Your task to perform on an android device: check battery use Image 0: 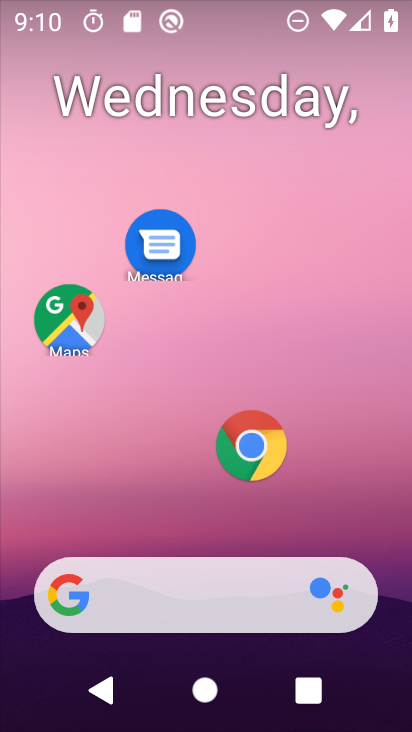
Step 0: drag from (200, 532) to (254, 46)
Your task to perform on an android device: check battery use Image 1: 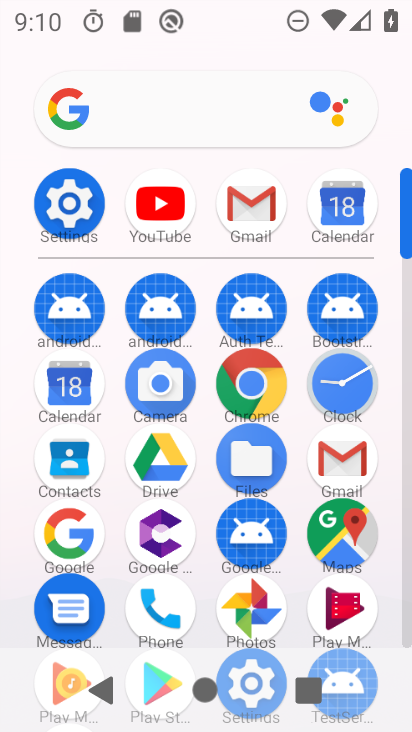
Step 1: click (75, 201)
Your task to perform on an android device: check battery use Image 2: 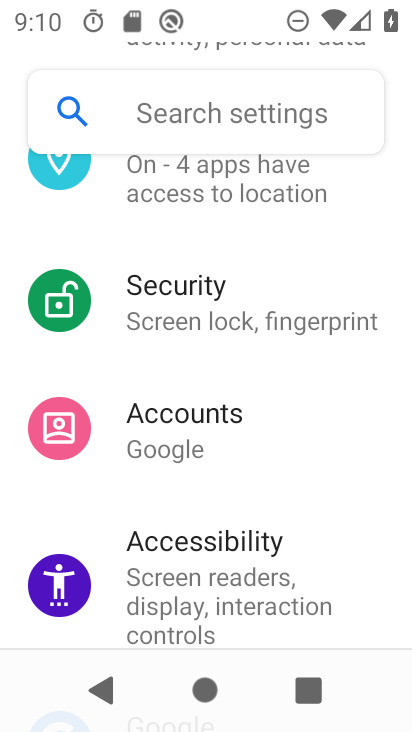
Step 2: drag from (200, 190) to (205, 629)
Your task to perform on an android device: check battery use Image 3: 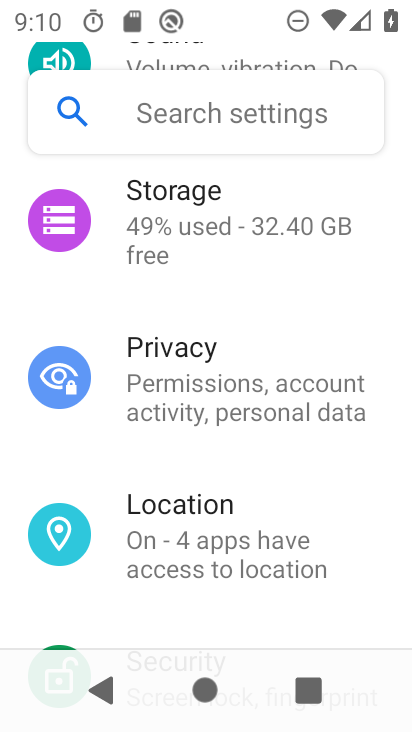
Step 3: drag from (186, 244) to (249, 683)
Your task to perform on an android device: check battery use Image 4: 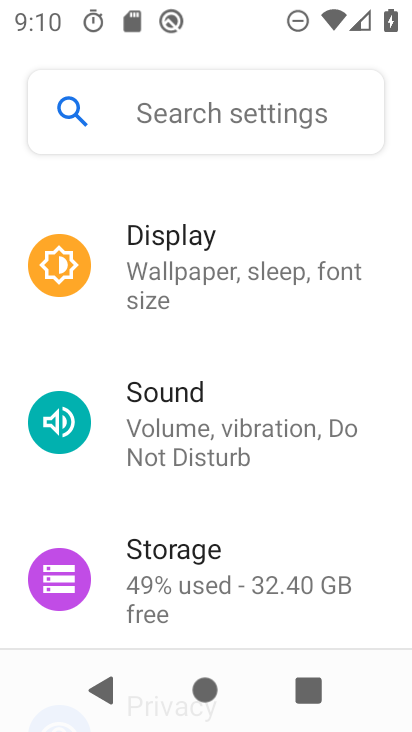
Step 4: drag from (199, 164) to (204, 584)
Your task to perform on an android device: check battery use Image 5: 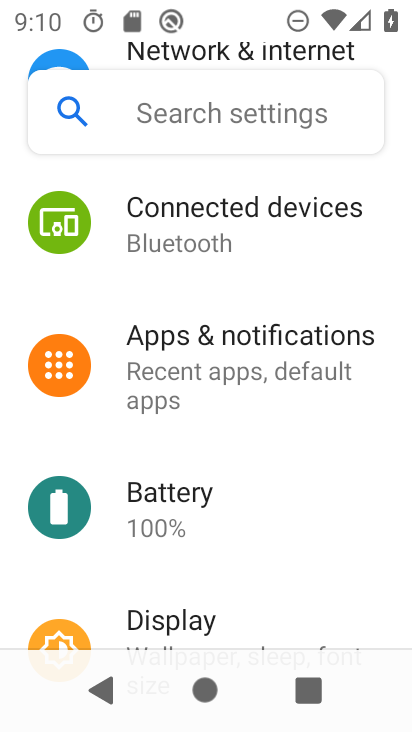
Step 5: click (206, 513)
Your task to perform on an android device: check battery use Image 6: 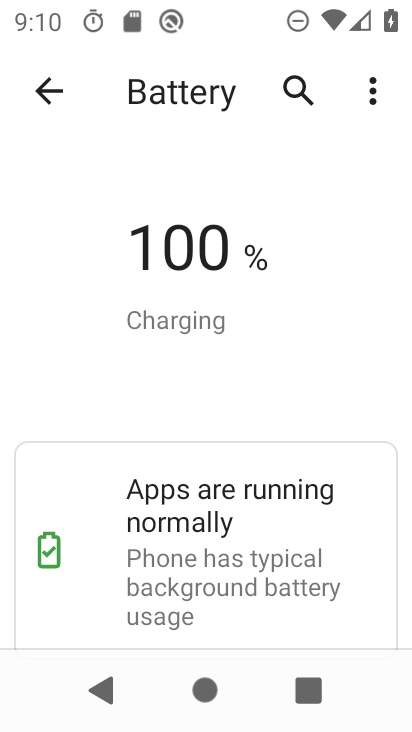
Step 6: click (375, 79)
Your task to perform on an android device: check battery use Image 7: 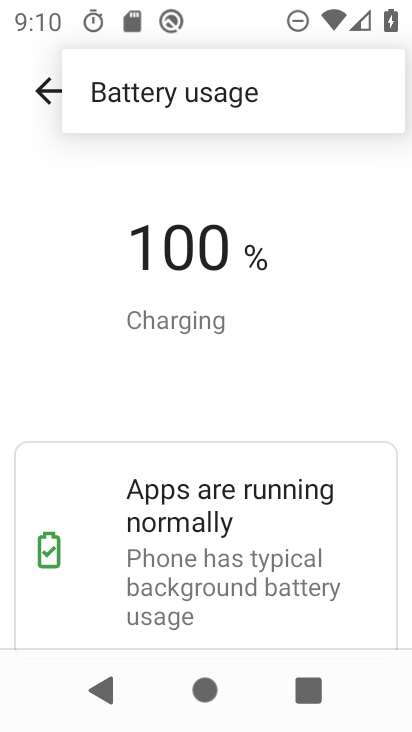
Step 7: click (192, 105)
Your task to perform on an android device: check battery use Image 8: 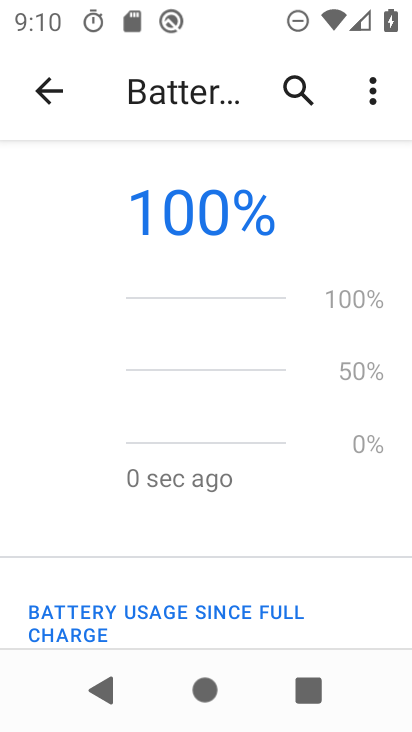
Step 8: drag from (240, 575) to (255, 221)
Your task to perform on an android device: check battery use Image 9: 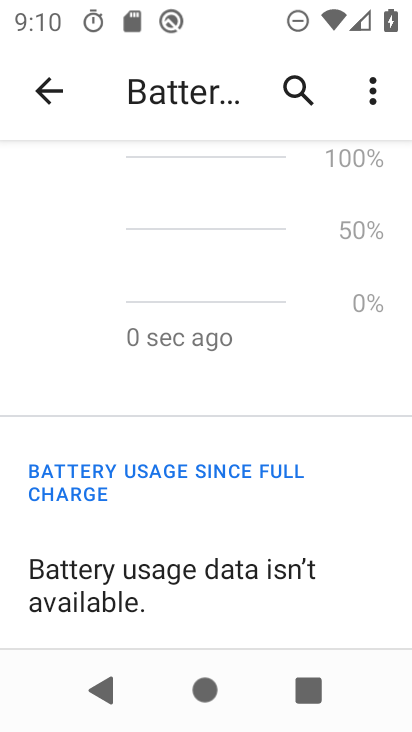
Step 9: click (373, 91)
Your task to perform on an android device: check battery use Image 10: 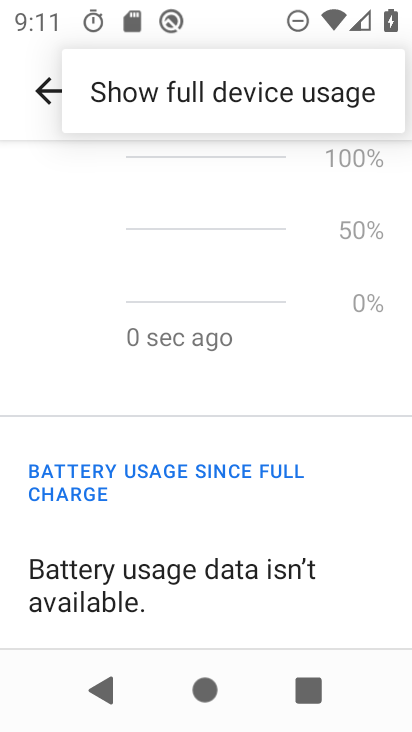
Step 10: task complete